Your task to perform on an android device: check out phone information Image 0: 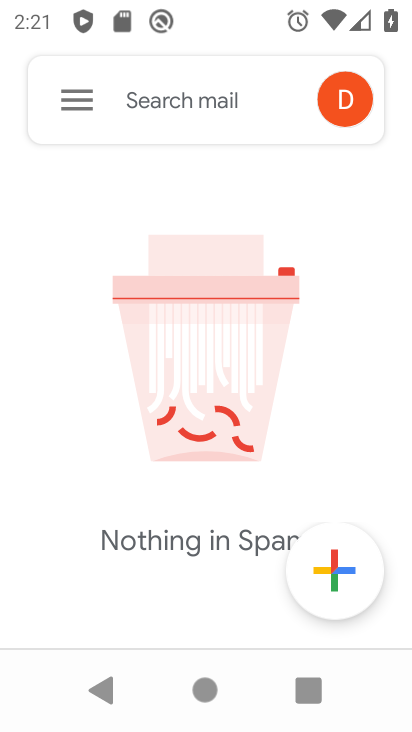
Step 0: press home button
Your task to perform on an android device: check out phone information Image 1: 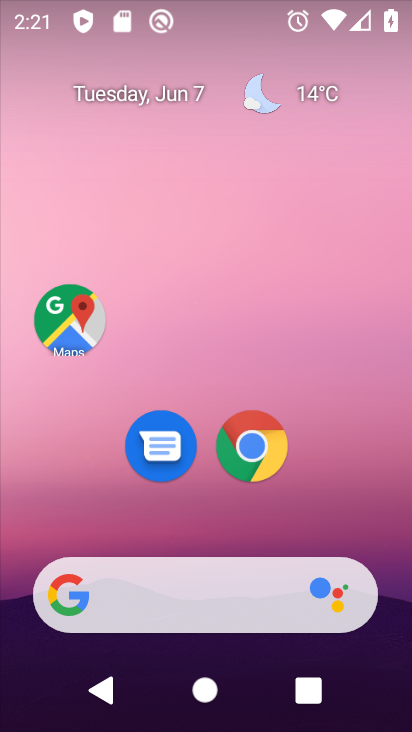
Step 1: drag from (392, 612) to (358, 82)
Your task to perform on an android device: check out phone information Image 2: 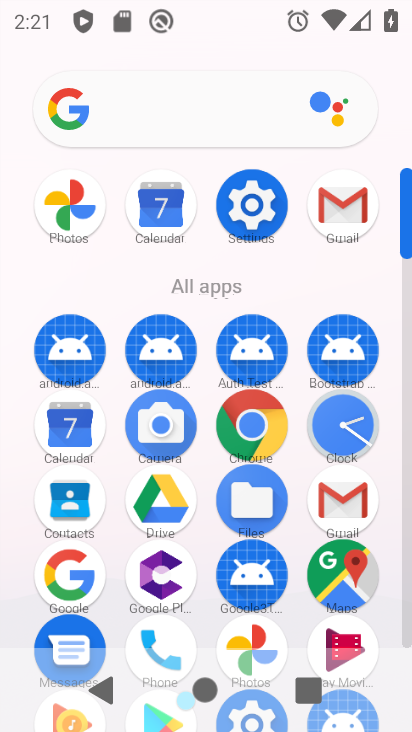
Step 2: click (407, 616)
Your task to perform on an android device: check out phone information Image 3: 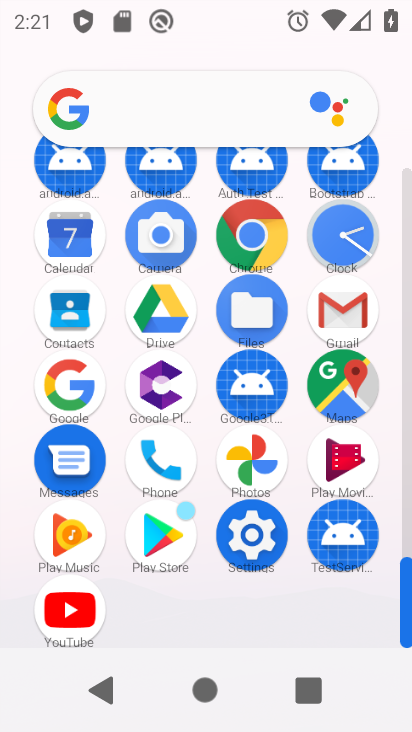
Step 3: click (249, 534)
Your task to perform on an android device: check out phone information Image 4: 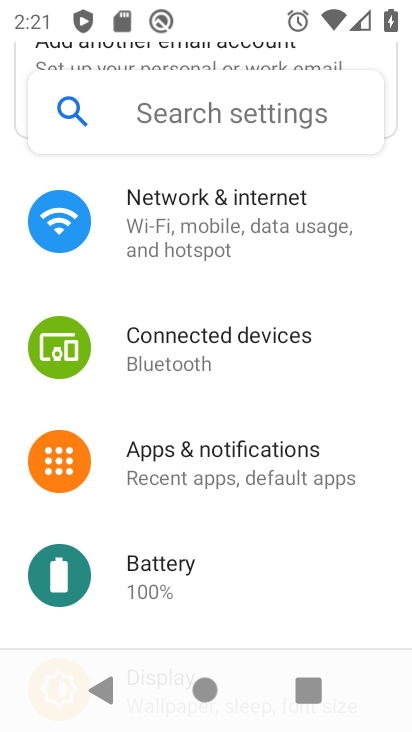
Step 4: drag from (363, 624) to (330, 124)
Your task to perform on an android device: check out phone information Image 5: 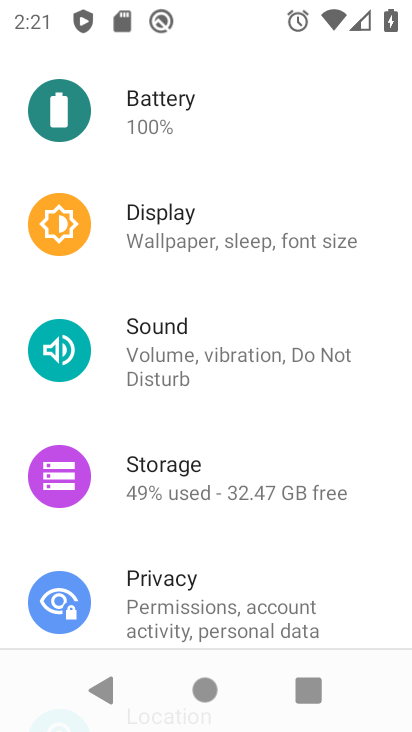
Step 5: drag from (346, 471) to (315, 99)
Your task to perform on an android device: check out phone information Image 6: 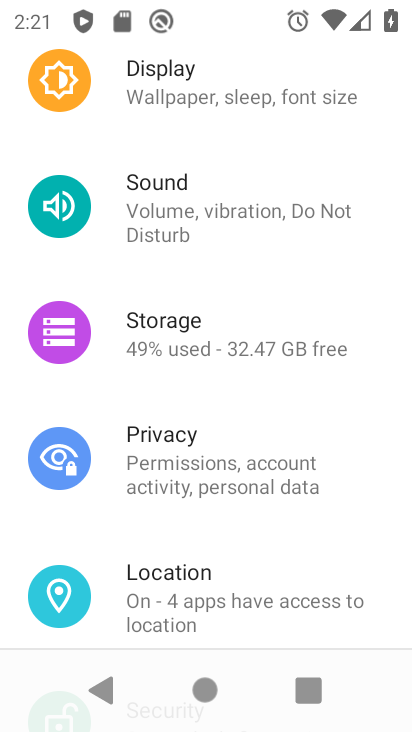
Step 6: drag from (369, 577) to (321, 108)
Your task to perform on an android device: check out phone information Image 7: 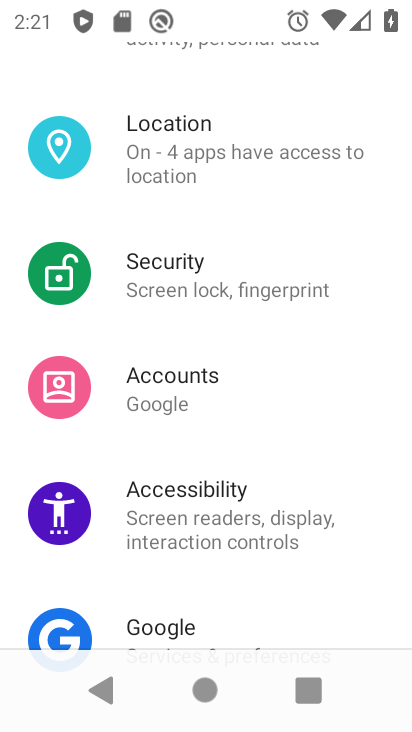
Step 7: drag from (359, 587) to (313, 136)
Your task to perform on an android device: check out phone information Image 8: 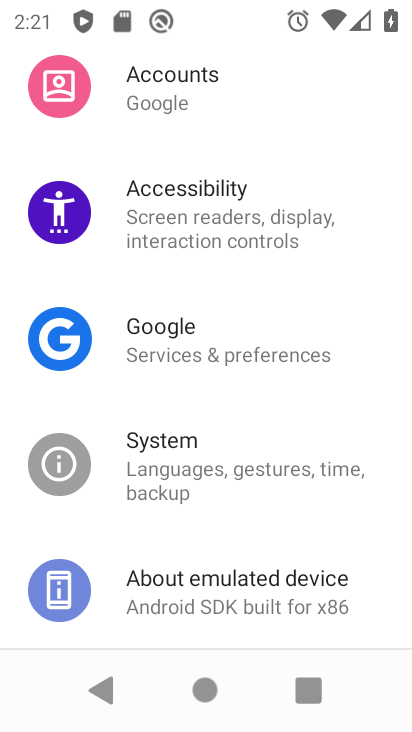
Step 8: click (193, 586)
Your task to perform on an android device: check out phone information Image 9: 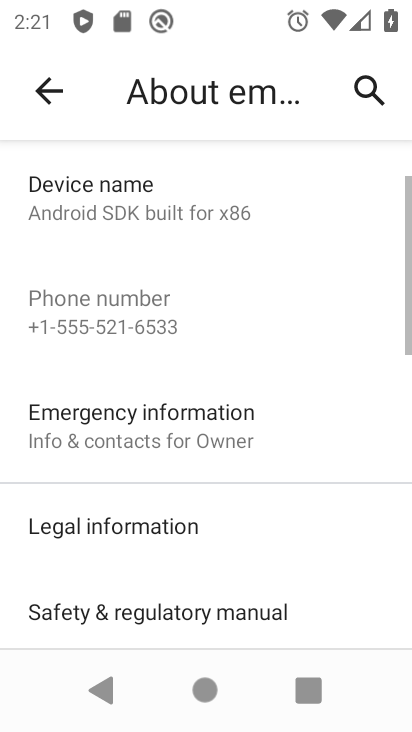
Step 9: drag from (343, 595) to (299, 423)
Your task to perform on an android device: check out phone information Image 10: 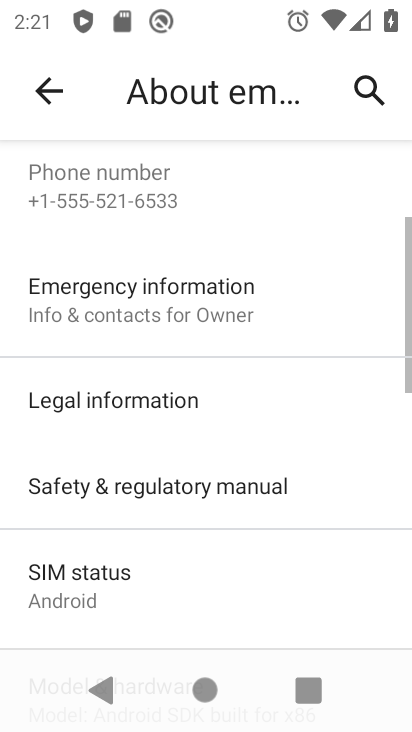
Step 10: click (308, 167)
Your task to perform on an android device: check out phone information Image 11: 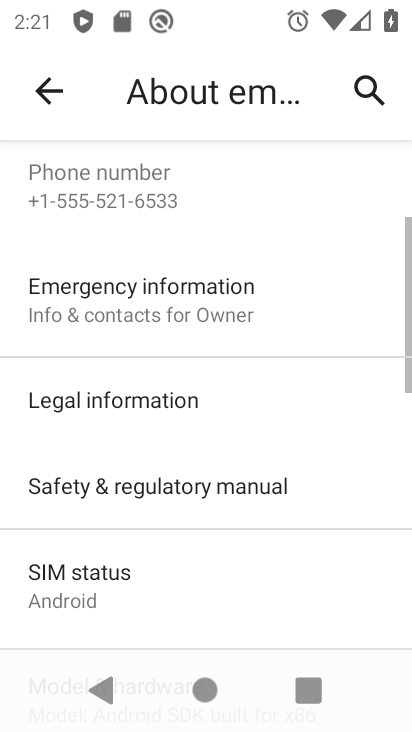
Step 11: task complete